Your task to perform on an android device: Search for pizza restaurants on Maps Image 0: 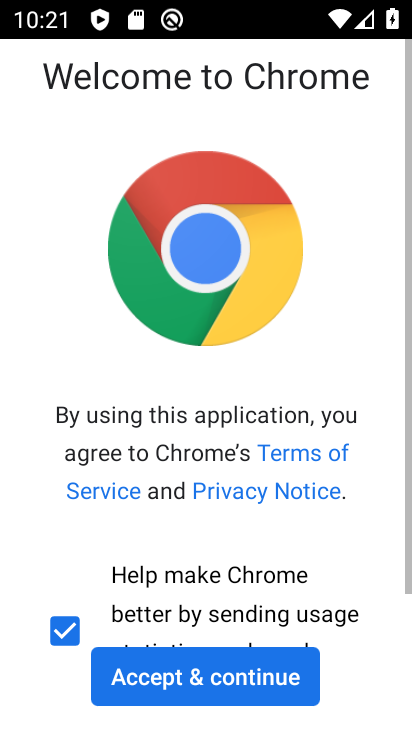
Step 0: press home button
Your task to perform on an android device: Search for pizza restaurants on Maps Image 1: 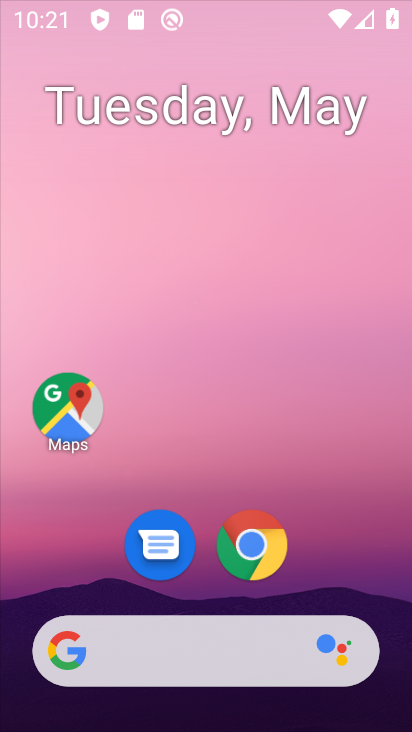
Step 1: drag from (206, 654) to (256, 238)
Your task to perform on an android device: Search for pizza restaurants on Maps Image 2: 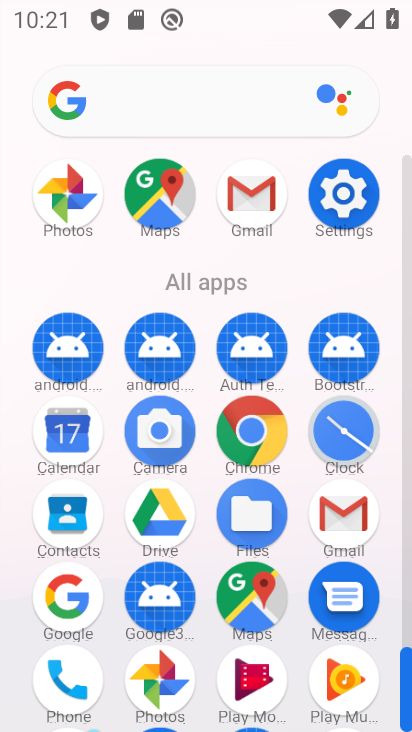
Step 2: click (180, 205)
Your task to perform on an android device: Search for pizza restaurants on Maps Image 3: 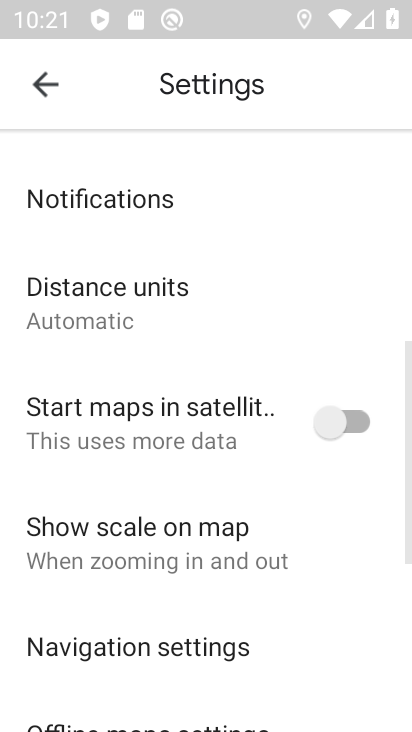
Step 3: click (50, 92)
Your task to perform on an android device: Search for pizza restaurants on Maps Image 4: 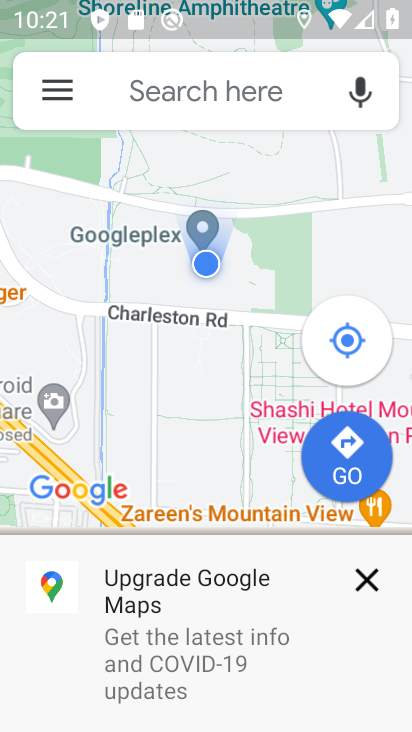
Step 4: click (198, 83)
Your task to perform on an android device: Search for pizza restaurants on Maps Image 5: 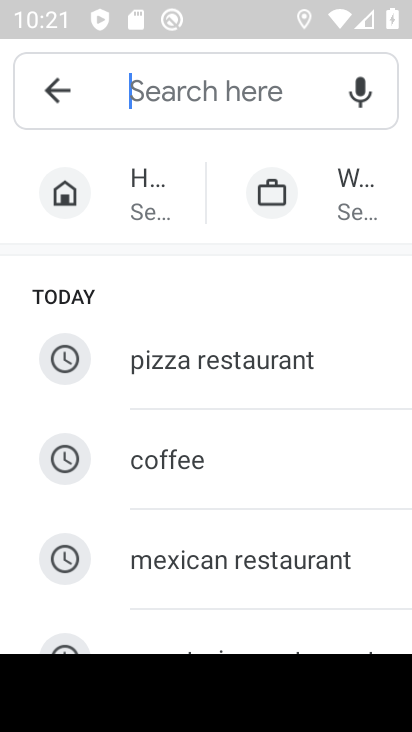
Step 5: click (238, 378)
Your task to perform on an android device: Search for pizza restaurants on Maps Image 6: 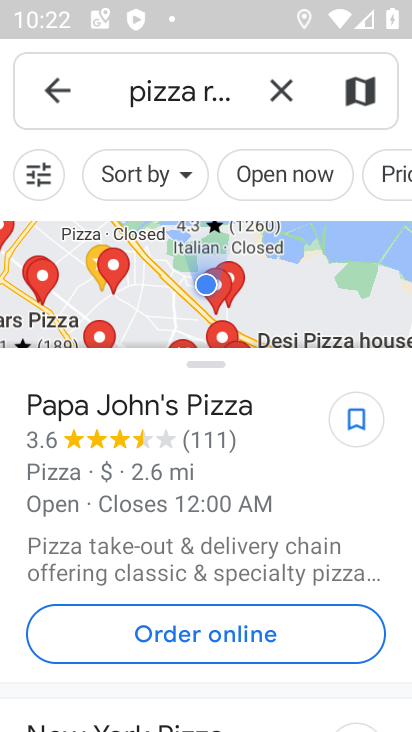
Step 6: task complete